Your task to perform on an android device: What's the weather? Image 0: 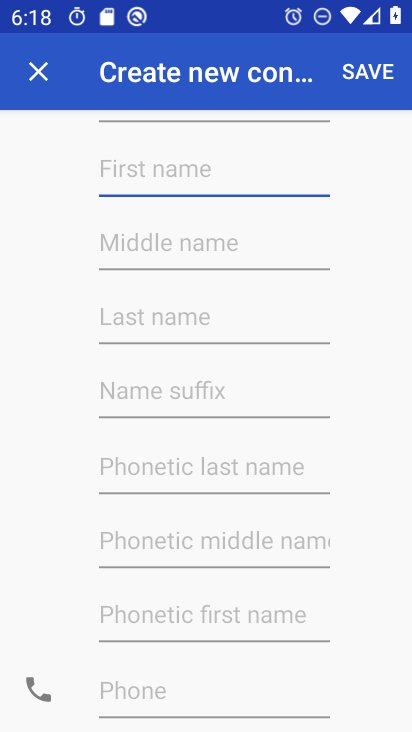
Step 0: drag from (227, 606) to (234, 148)
Your task to perform on an android device: What's the weather? Image 1: 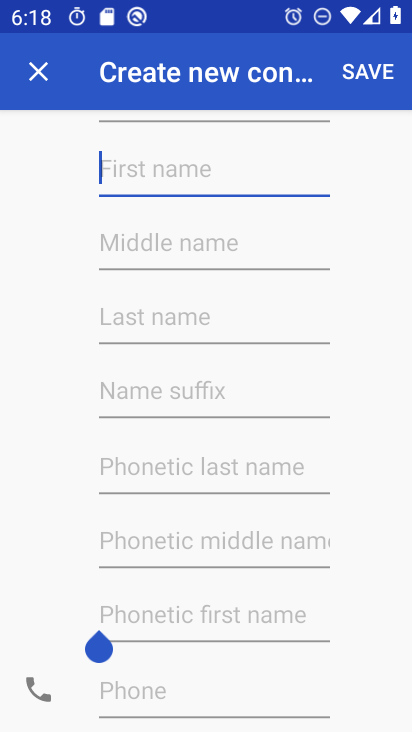
Step 1: press home button
Your task to perform on an android device: What's the weather? Image 2: 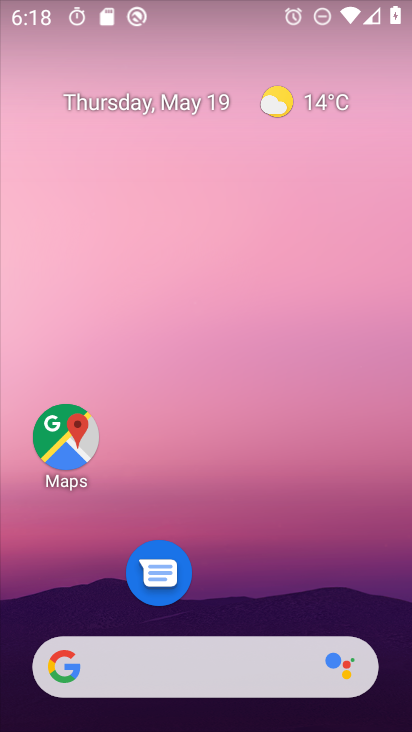
Step 2: drag from (254, 593) to (242, 44)
Your task to perform on an android device: What's the weather? Image 3: 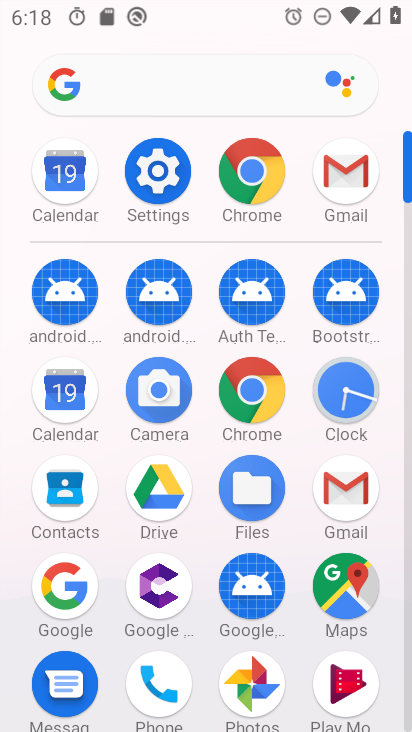
Step 3: click (54, 586)
Your task to perform on an android device: What's the weather? Image 4: 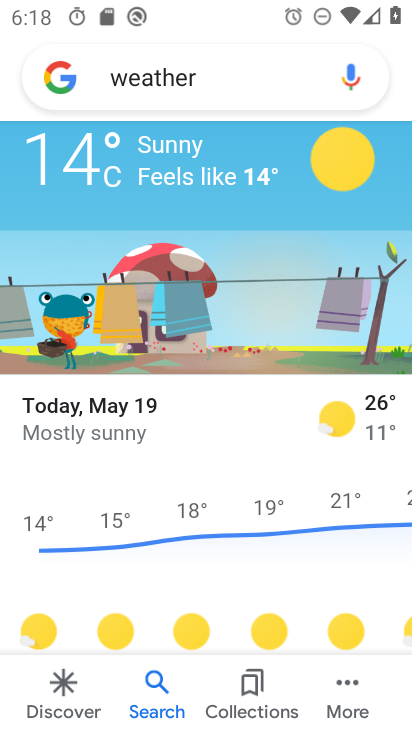
Step 4: task complete